Your task to perform on an android device: Go to notification settings Image 0: 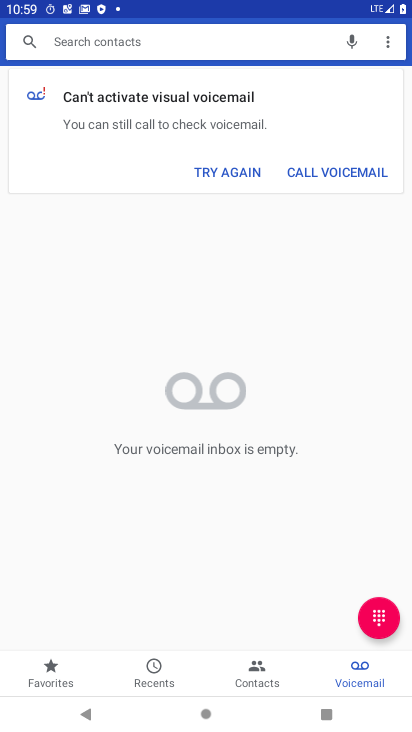
Step 0: press home button
Your task to perform on an android device: Go to notification settings Image 1: 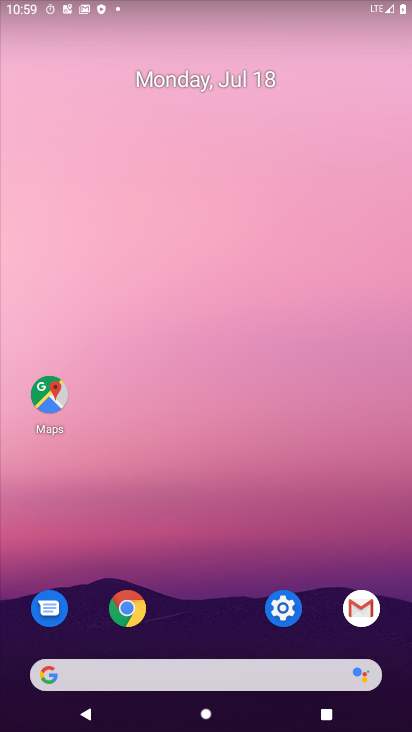
Step 1: click (286, 617)
Your task to perform on an android device: Go to notification settings Image 2: 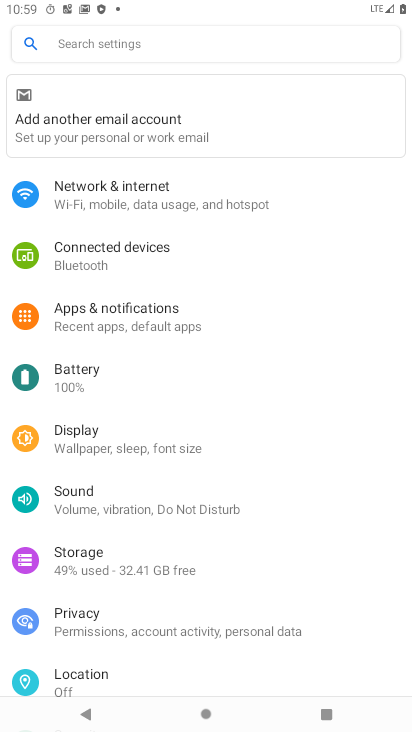
Step 2: click (106, 38)
Your task to perform on an android device: Go to notification settings Image 3: 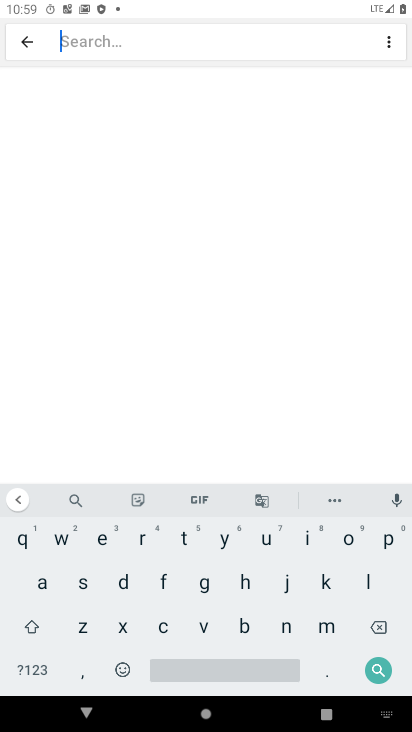
Step 3: click (282, 628)
Your task to perform on an android device: Go to notification settings Image 4: 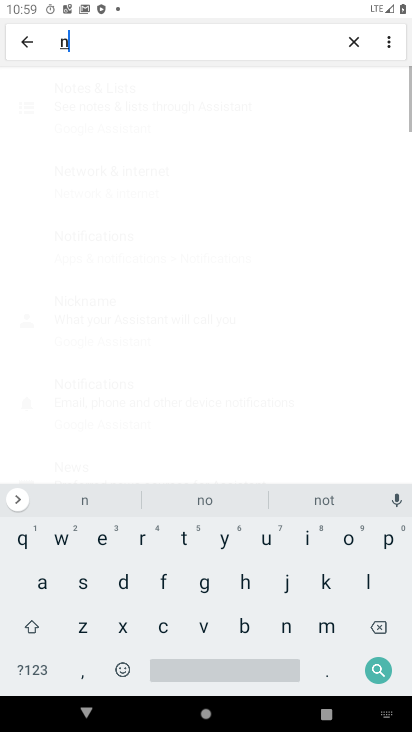
Step 4: click (350, 538)
Your task to perform on an android device: Go to notification settings Image 5: 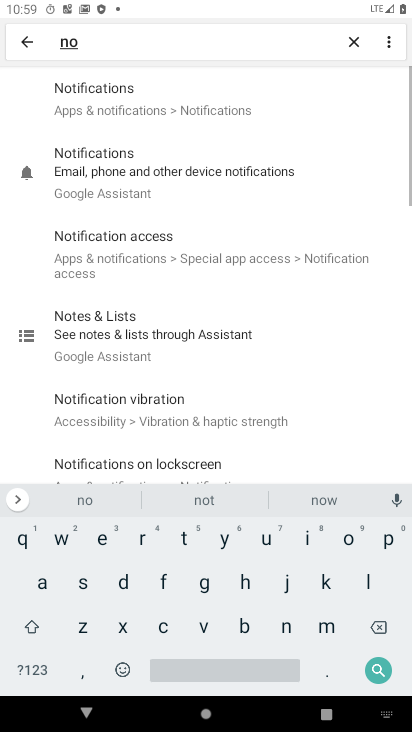
Step 5: click (146, 113)
Your task to perform on an android device: Go to notification settings Image 6: 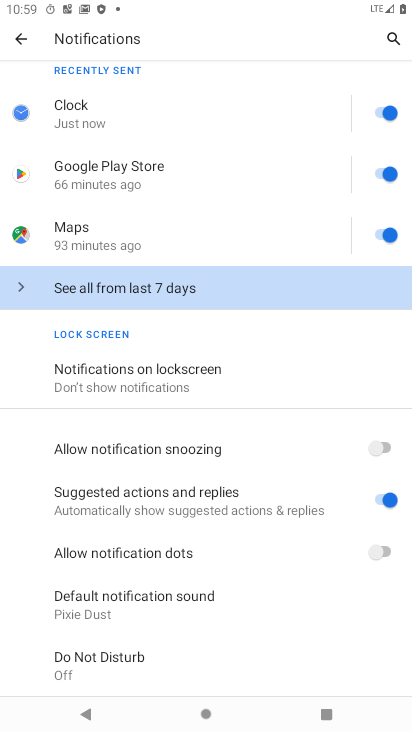
Step 6: click (163, 387)
Your task to perform on an android device: Go to notification settings Image 7: 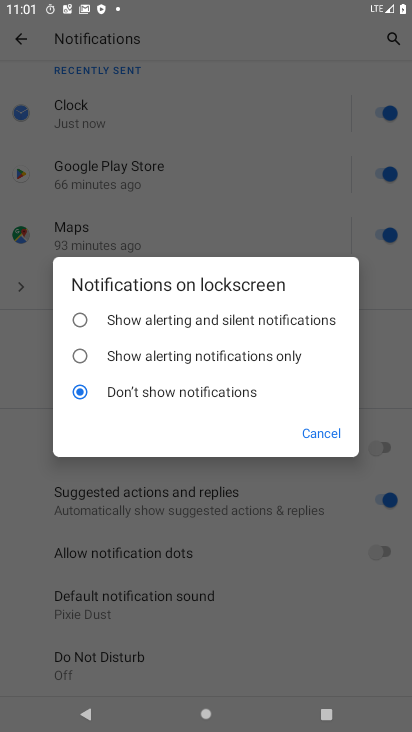
Step 7: task complete